Your task to perform on an android device: turn off notifications settings in the gmail app Image 0: 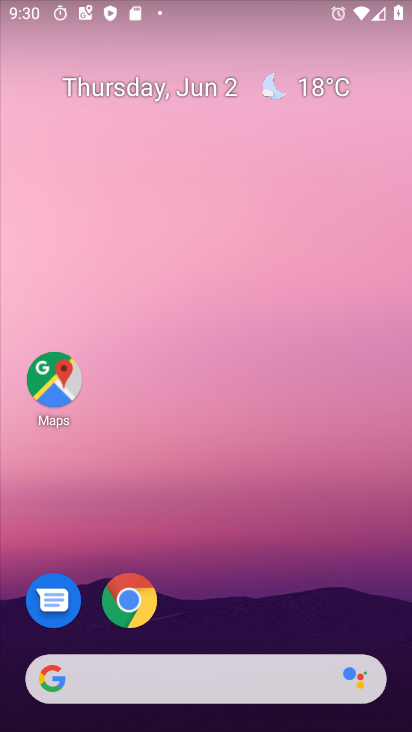
Step 0: drag from (371, 613) to (391, 185)
Your task to perform on an android device: turn off notifications settings in the gmail app Image 1: 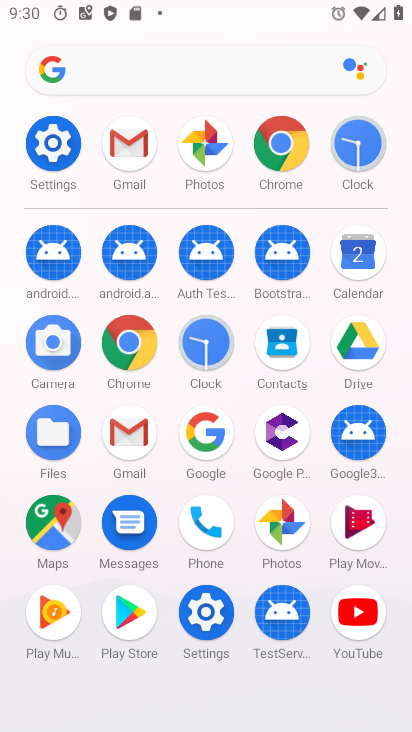
Step 1: click (142, 443)
Your task to perform on an android device: turn off notifications settings in the gmail app Image 2: 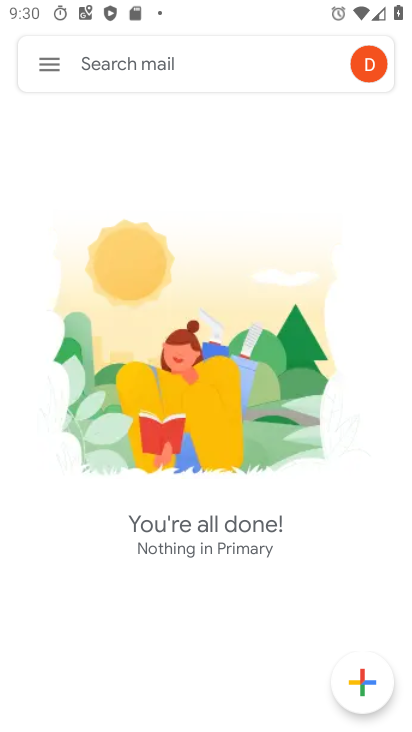
Step 2: click (50, 69)
Your task to perform on an android device: turn off notifications settings in the gmail app Image 3: 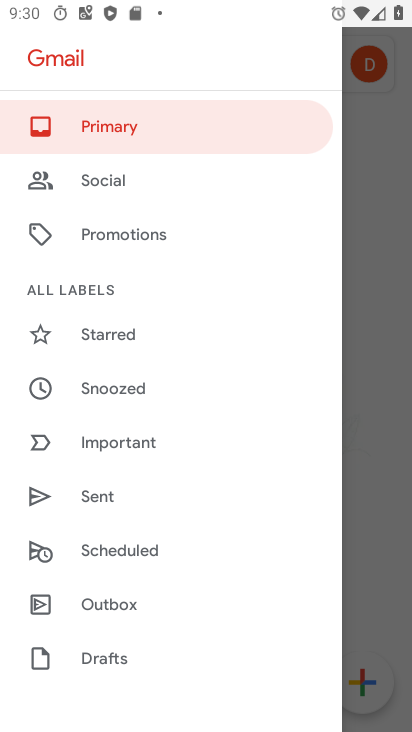
Step 3: drag from (240, 377) to (270, 217)
Your task to perform on an android device: turn off notifications settings in the gmail app Image 4: 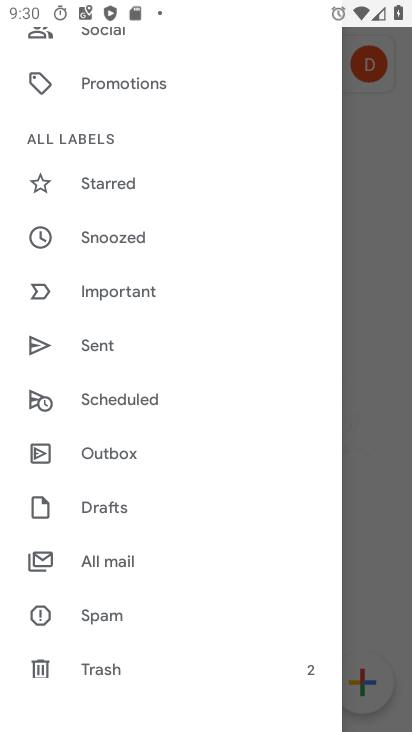
Step 4: drag from (267, 435) to (277, 251)
Your task to perform on an android device: turn off notifications settings in the gmail app Image 5: 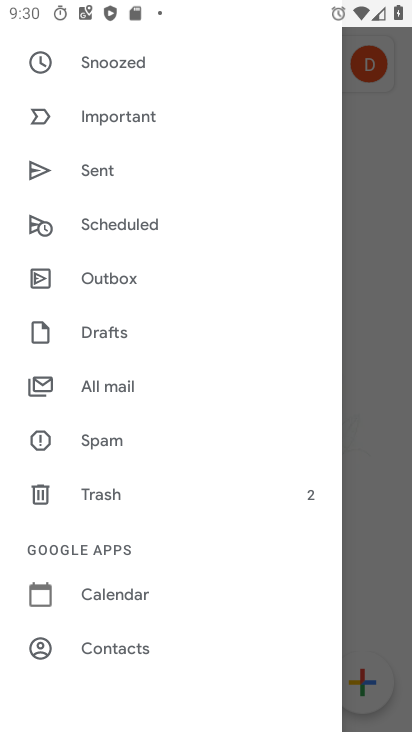
Step 5: drag from (234, 381) to (236, 150)
Your task to perform on an android device: turn off notifications settings in the gmail app Image 6: 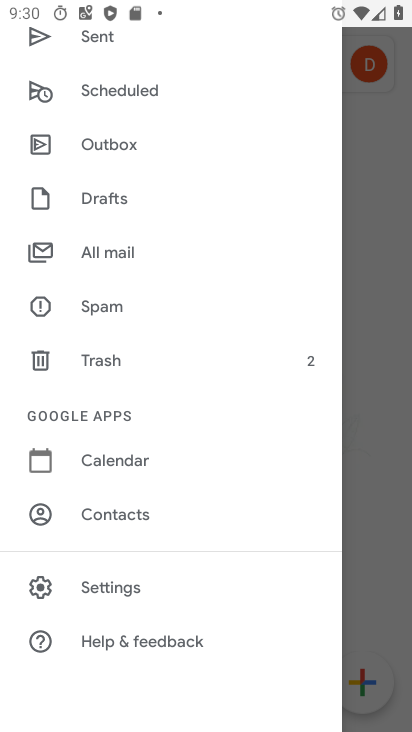
Step 6: click (155, 599)
Your task to perform on an android device: turn off notifications settings in the gmail app Image 7: 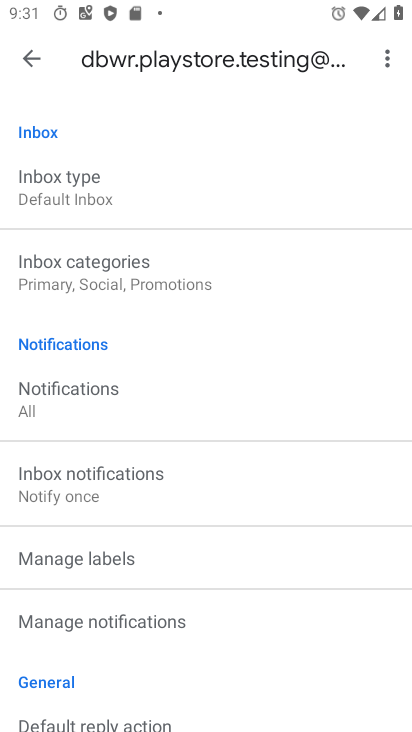
Step 7: drag from (311, 423) to (321, 301)
Your task to perform on an android device: turn off notifications settings in the gmail app Image 8: 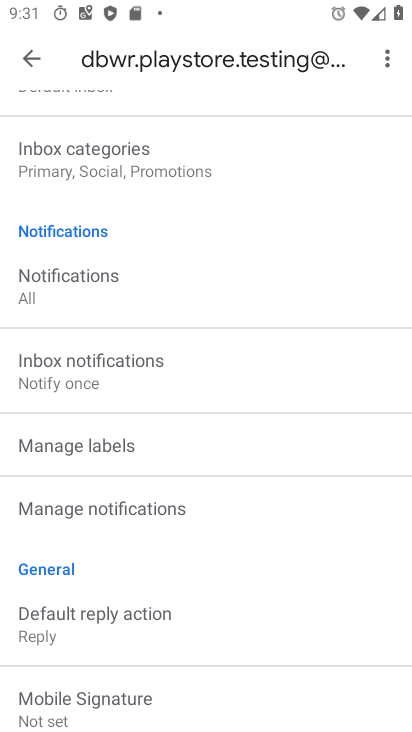
Step 8: drag from (304, 429) to (320, 329)
Your task to perform on an android device: turn off notifications settings in the gmail app Image 9: 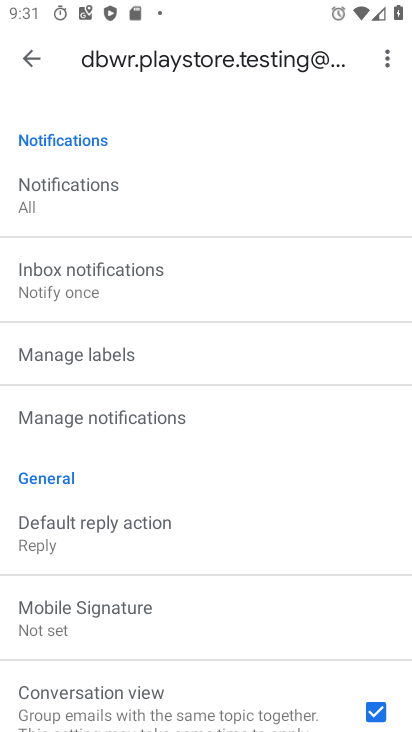
Step 9: drag from (303, 475) to (314, 374)
Your task to perform on an android device: turn off notifications settings in the gmail app Image 10: 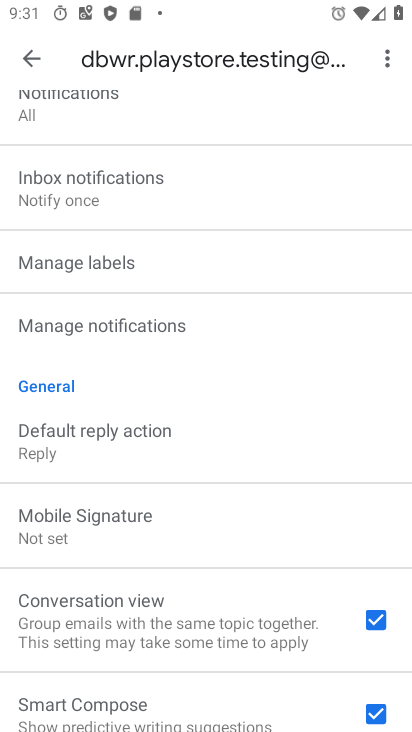
Step 10: click (202, 330)
Your task to perform on an android device: turn off notifications settings in the gmail app Image 11: 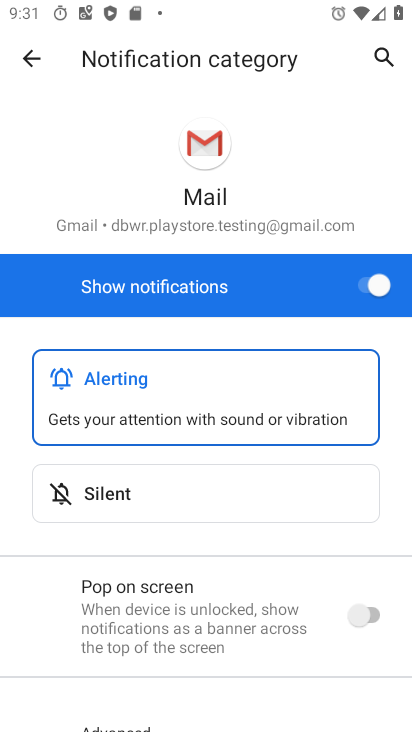
Step 11: click (352, 291)
Your task to perform on an android device: turn off notifications settings in the gmail app Image 12: 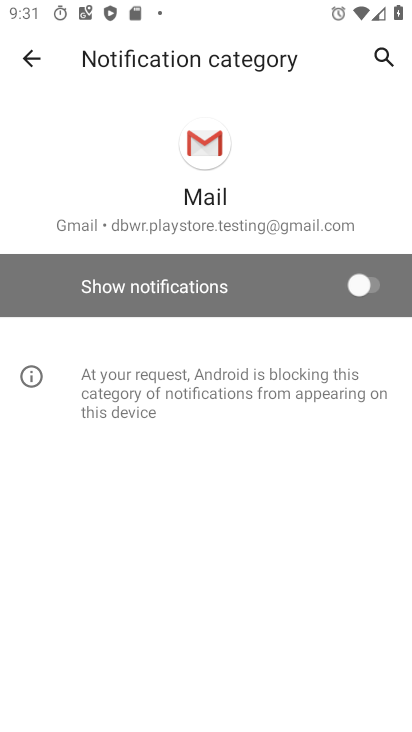
Step 12: task complete